Your task to perform on an android device: toggle show notifications on the lock screen Image 0: 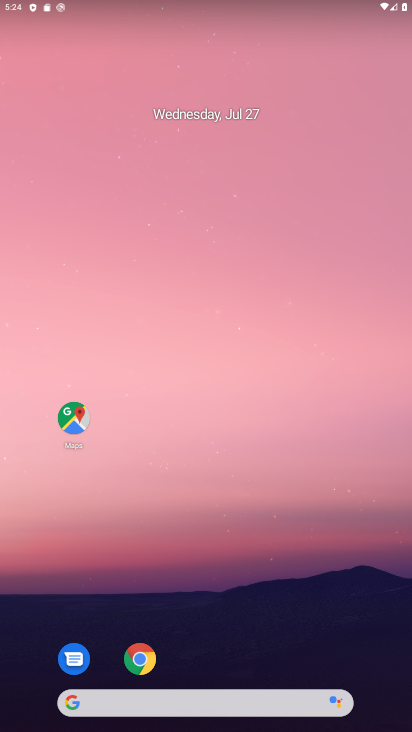
Step 0: drag from (261, 648) to (309, 112)
Your task to perform on an android device: toggle show notifications on the lock screen Image 1: 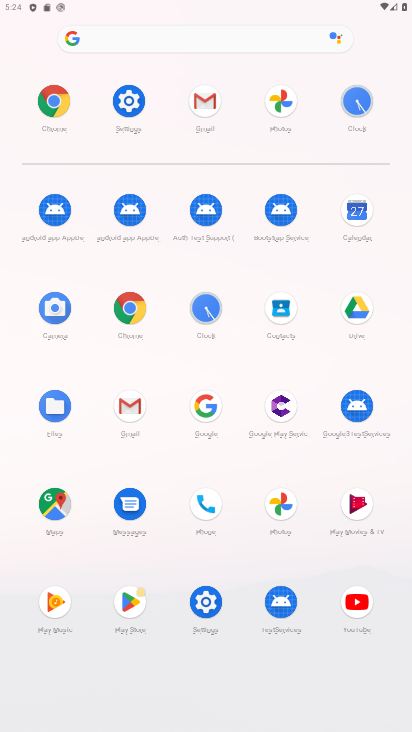
Step 1: click (199, 598)
Your task to perform on an android device: toggle show notifications on the lock screen Image 2: 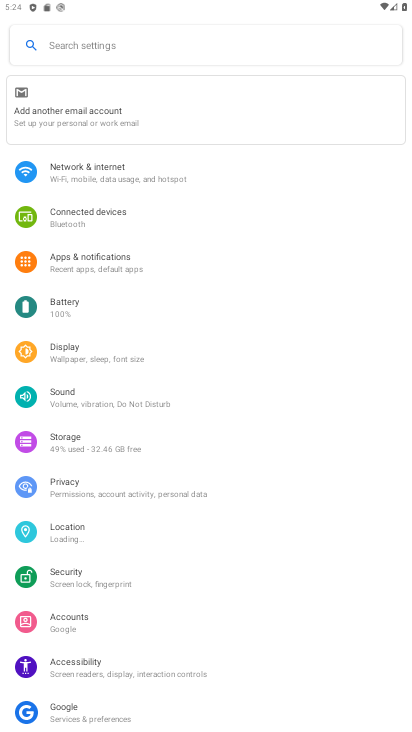
Step 2: click (79, 262)
Your task to perform on an android device: toggle show notifications on the lock screen Image 3: 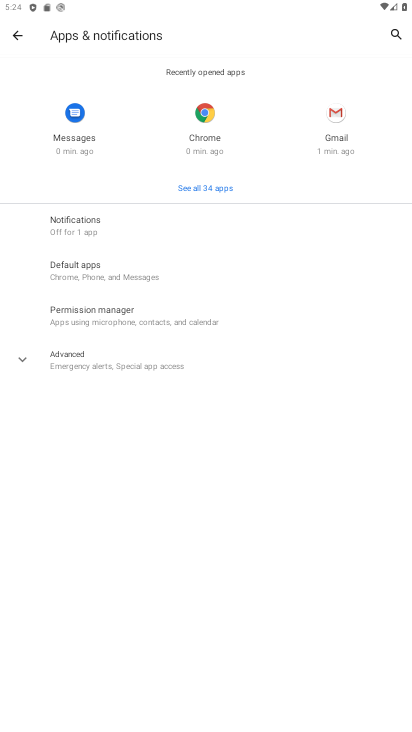
Step 3: click (75, 224)
Your task to perform on an android device: toggle show notifications on the lock screen Image 4: 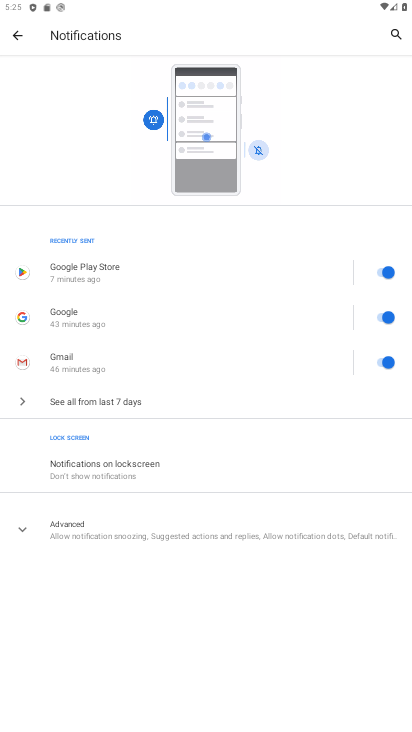
Step 4: click (135, 460)
Your task to perform on an android device: toggle show notifications on the lock screen Image 5: 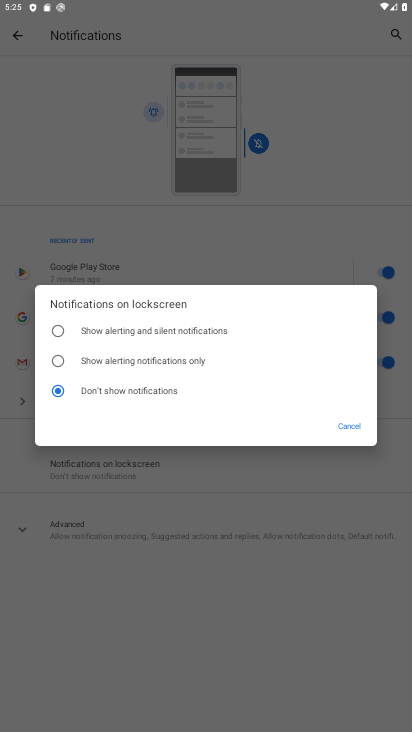
Step 5: click (116, 333)
Your task to perform on an android device: toggle show notifications on the lock screen Image 6: 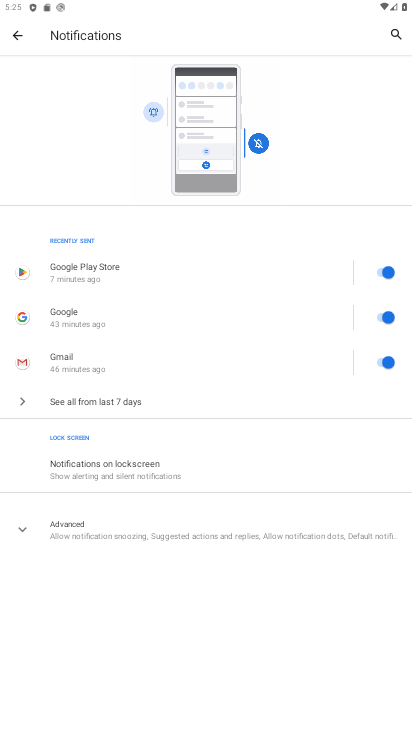
Step 6: task complete